Your task to perform on an android device: Open notification settings Image 0: 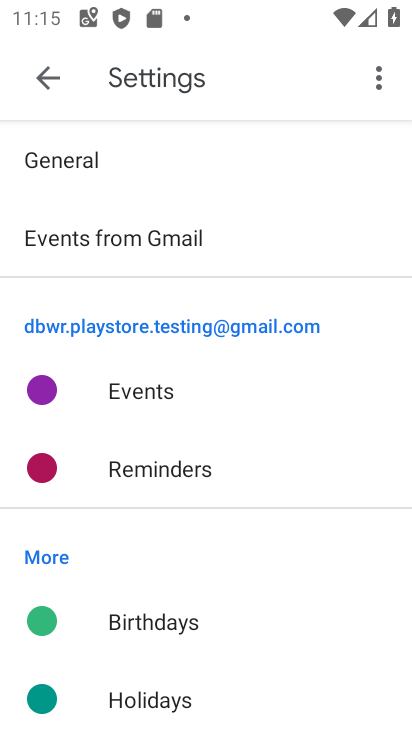
Step 0: press home button
Your task to perform on an android device: Open notification settings Image 1: 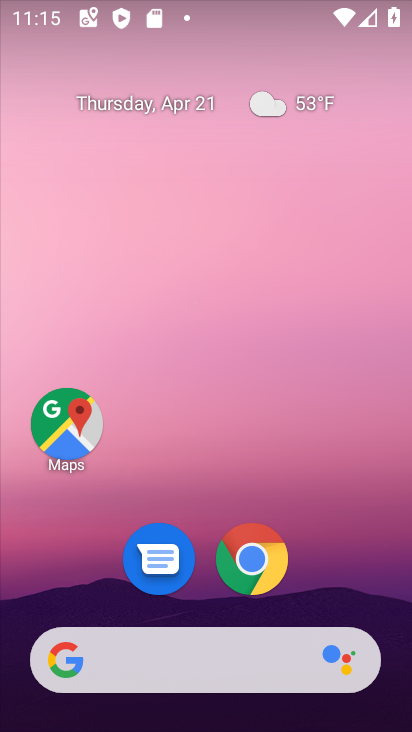
Step 1: drag from (372, 601) to (336, 17)
Your task to perform on an android device: Open notification settings Image 2: 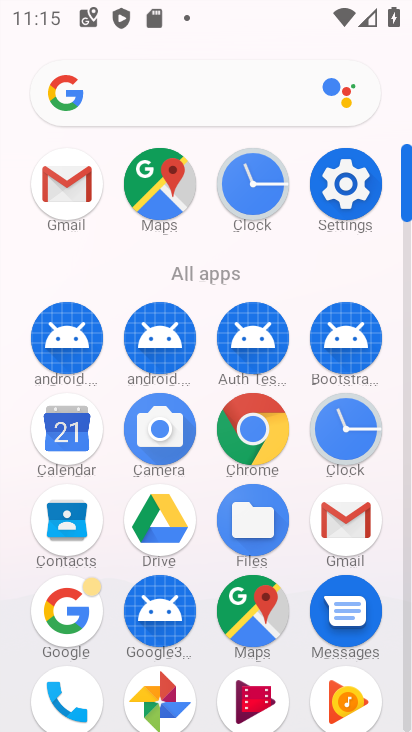
Step 2: click (345, 190)
Your task to perform on an android device: Open notification settings Image 3: 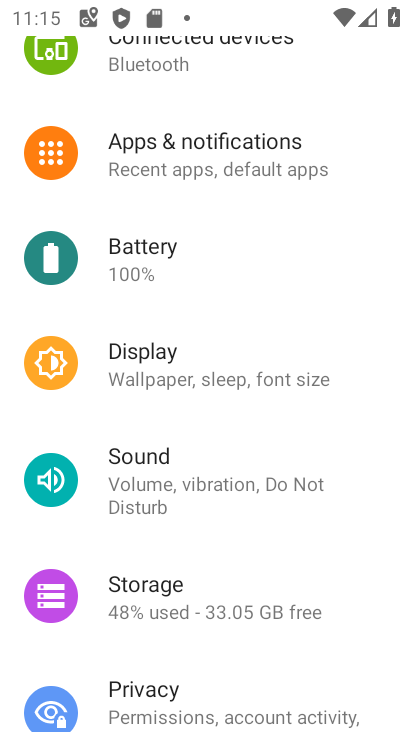
Step 3: click (227, 169)
Your task to perform on an android device: Open notification settings Image 4: 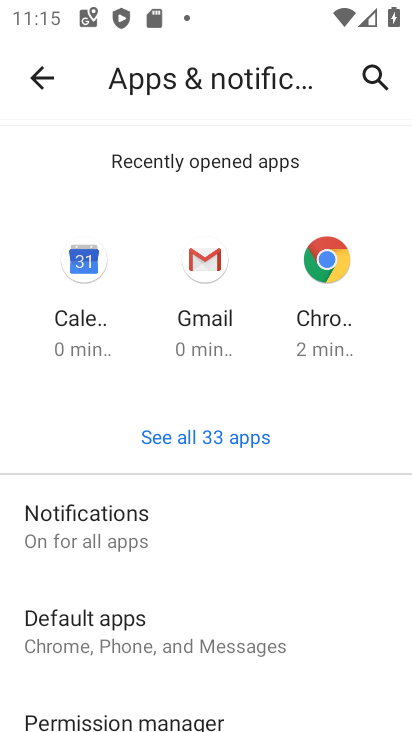
Step 4: task complete